Your task to perform on an android device: delete location history Image 0: 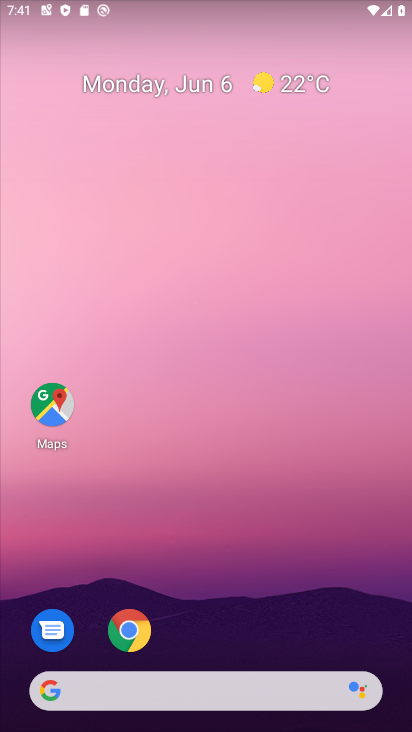
Step 0: drag from (144, 678) to (223, 31)
Your task to perform on an android device: delete location history Image 1: 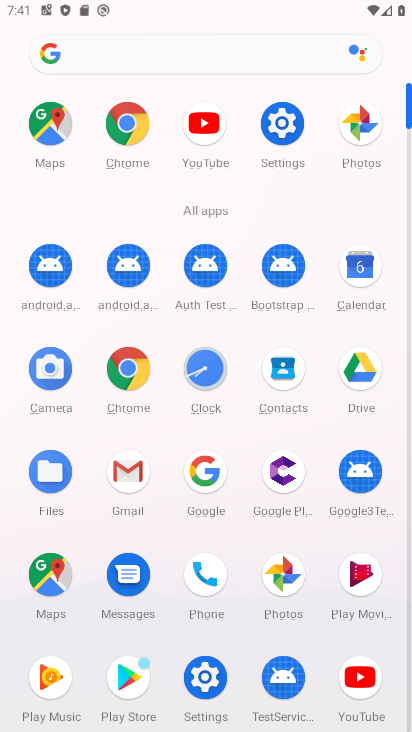
Step 1: click (292, 135)
Your task to perform on an android device: delete location history Image 2: 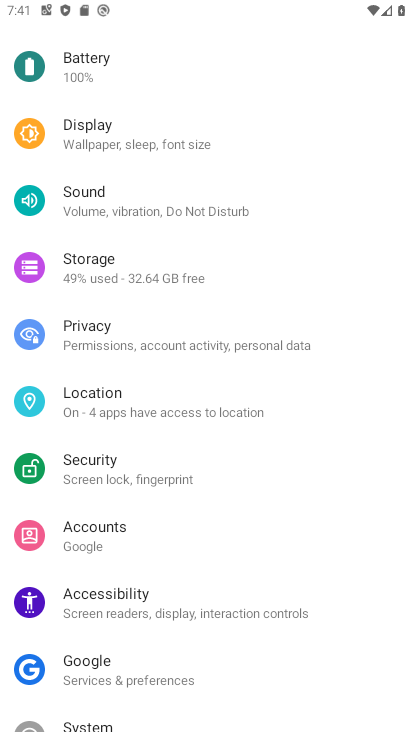
Step 2: click (151, 406)
Your task to perform on an android device: delete location history Image 3: 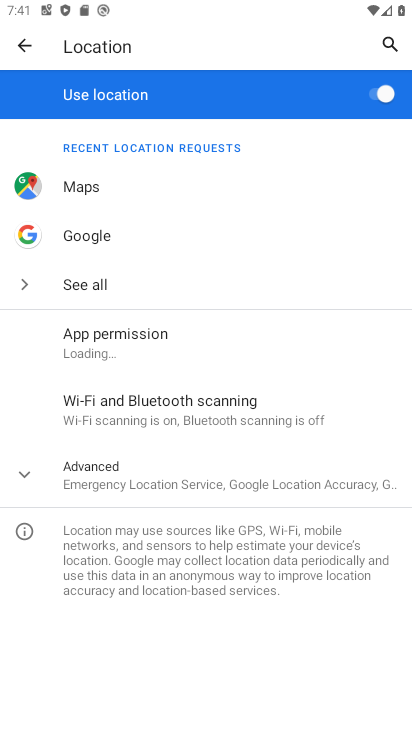
Step 3: click (149, 495)
Your task to perform on an android device: delete location history Image 4: 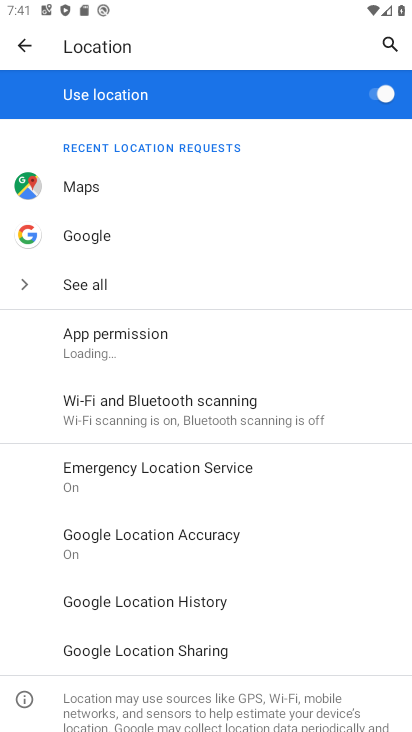
Step 4: click (163, 603)
Your task to perform on an android device: delete location history Image 5: 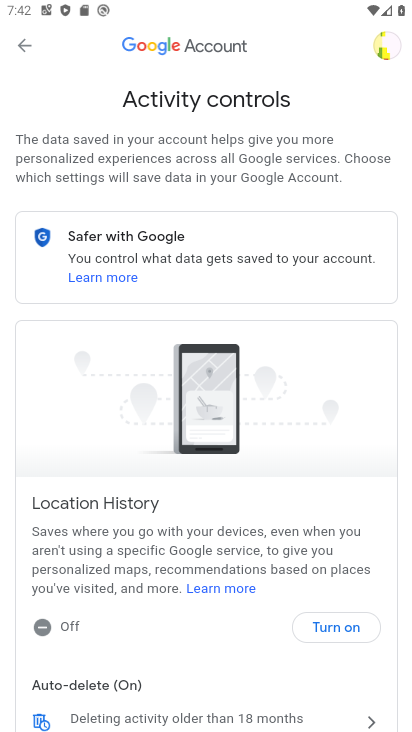
Step 5: click (135, 711)
Your task to perform on an android device: delete location history Image 6: 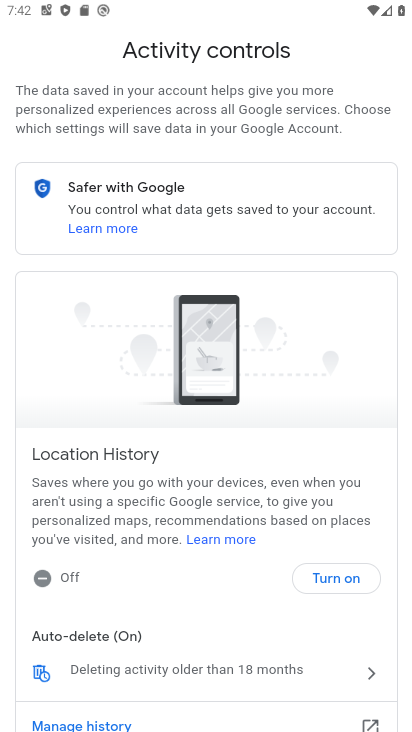
Step 6: click (220, 670)
Your task to perform on an android device: delete location history Image 7: 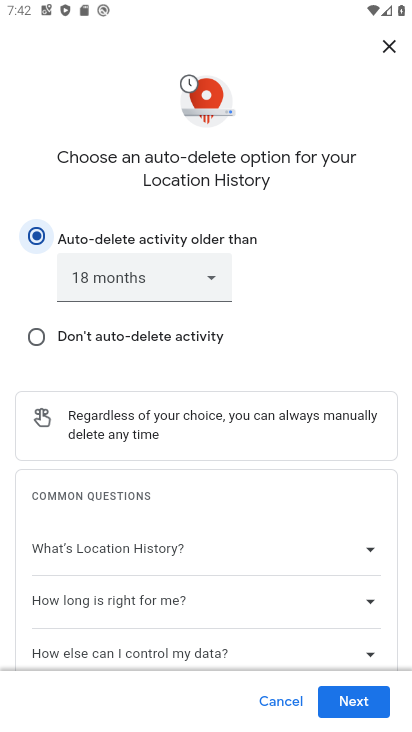
Step 7: click (176, 294)
Your task to perform on an android device: delete location history Image 8: 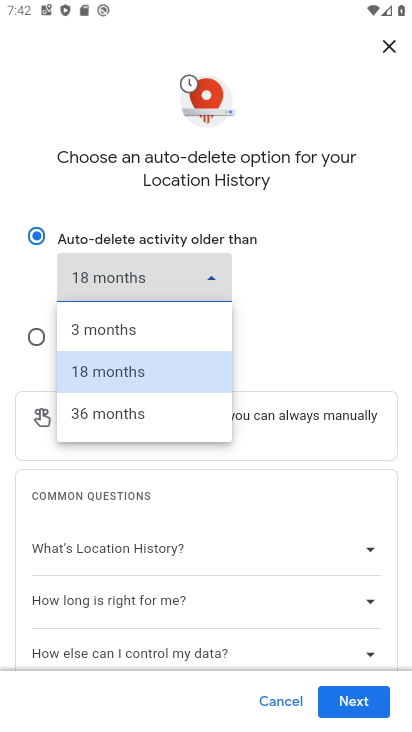
Step 8: click (133, 340)
Your task to perform on an android device: delete location history Image 9: 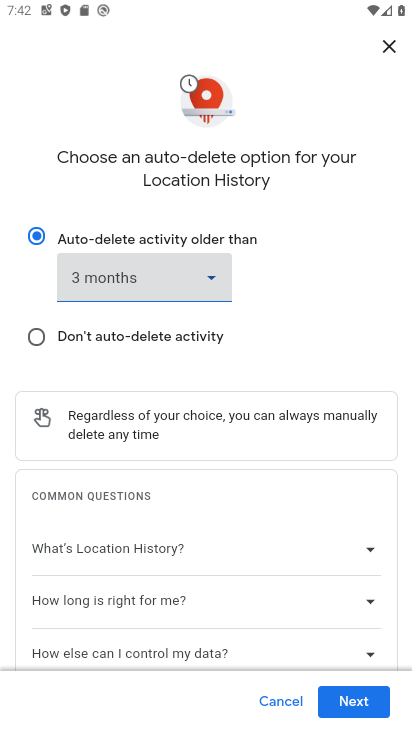
Step 9: click (364, 704)
Your task to perform on an android device: delete location history Image 10: 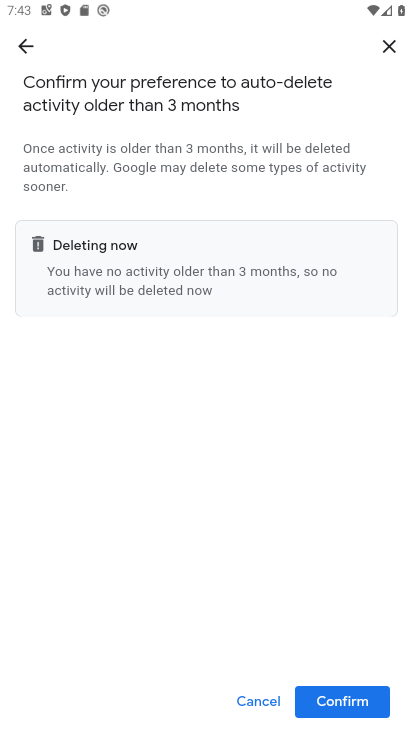
Step 10: click (319, 712)
Your task to perform on an android device: delete location history Image 11: 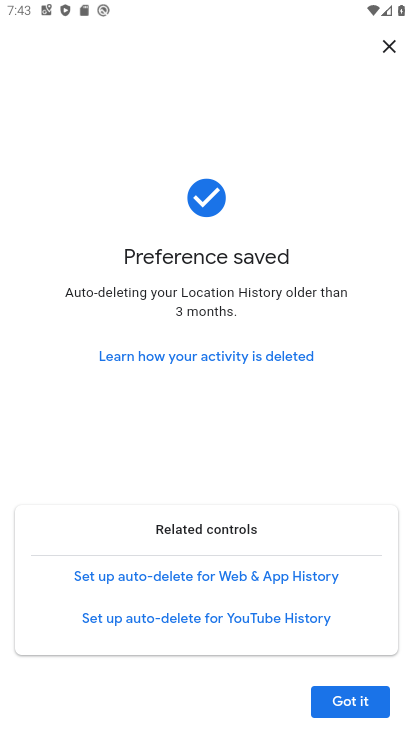
Step 11: click (371, 708)
Your task to perform on an android device: delete location history Image 12: 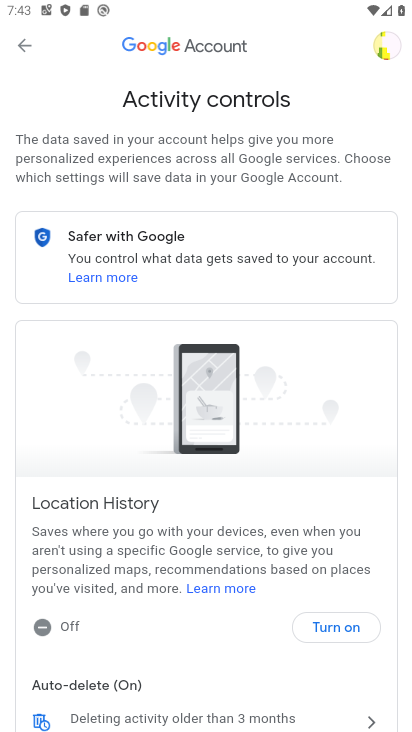
Step 12: task complete